Your task to perform on an android device: Set the phone to "Do not disturb". Image 0: 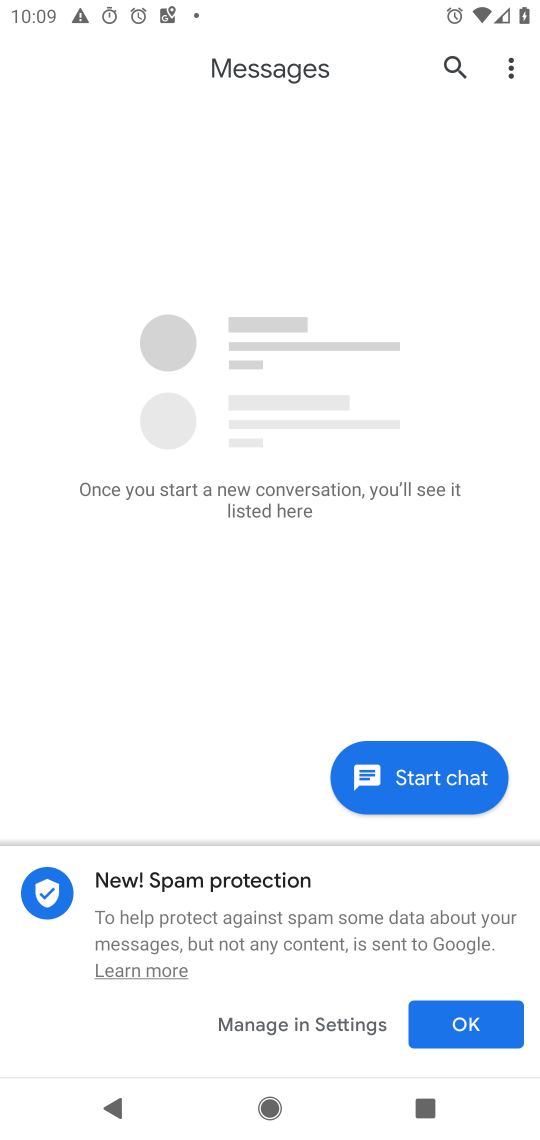
Step 0: press home button
Your task to perform on an android device: Set the phone to "Do not disturb". Image 1: 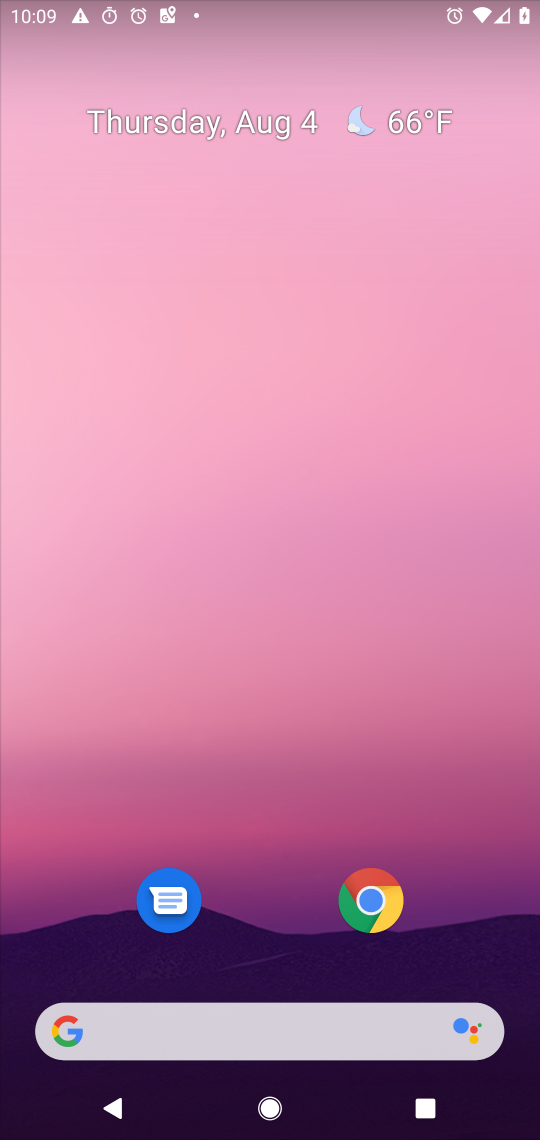
Step 1: drag from (237, 1017) to (332, 64)
Your task to perform on an android device: Set the phone to "Do not disturb". Image 2: 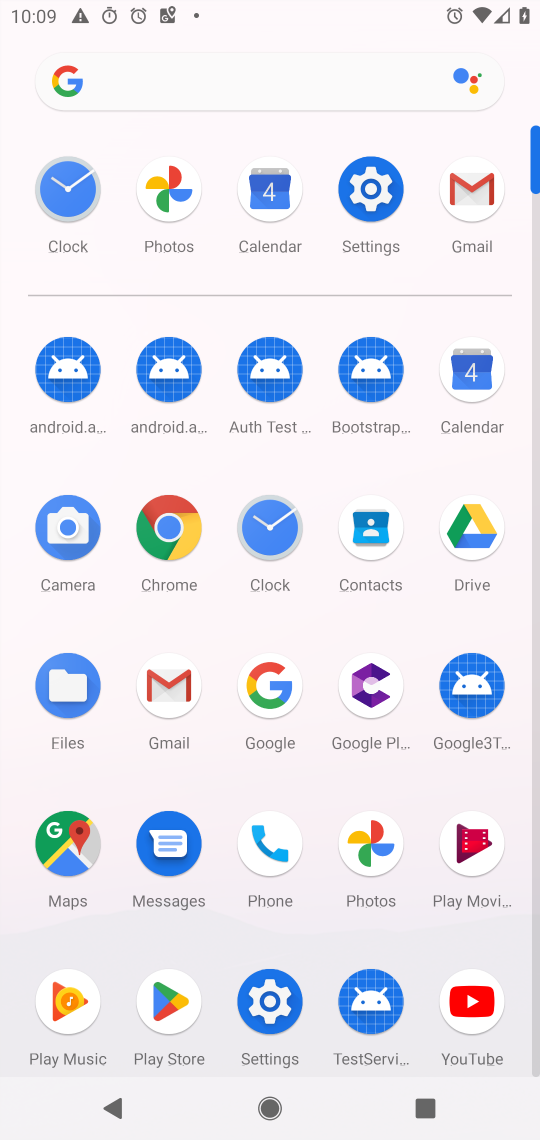
Step 2: click (370, 185)
Your task to perform on an android device: Set the phone to "Do not disturb". Image 3: 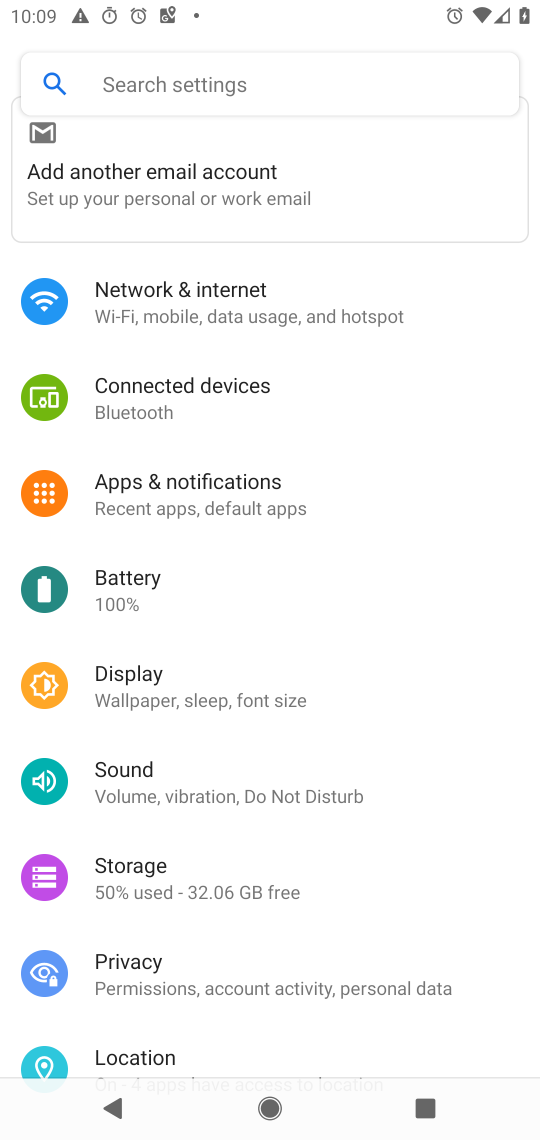
Step 3: click (181, 793)
Your task to perform on an android device: Set the phone to "Do not disturb". Image 4: 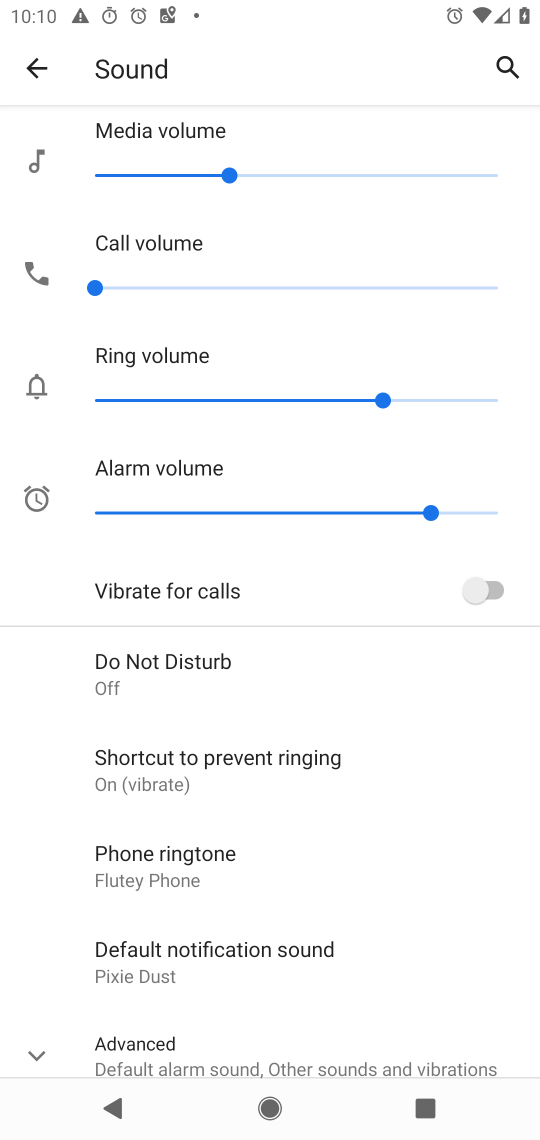
Step 4: click (188, 671)
Your task to perform on an android device: Set the phone to "Do not disturb". Image 5: 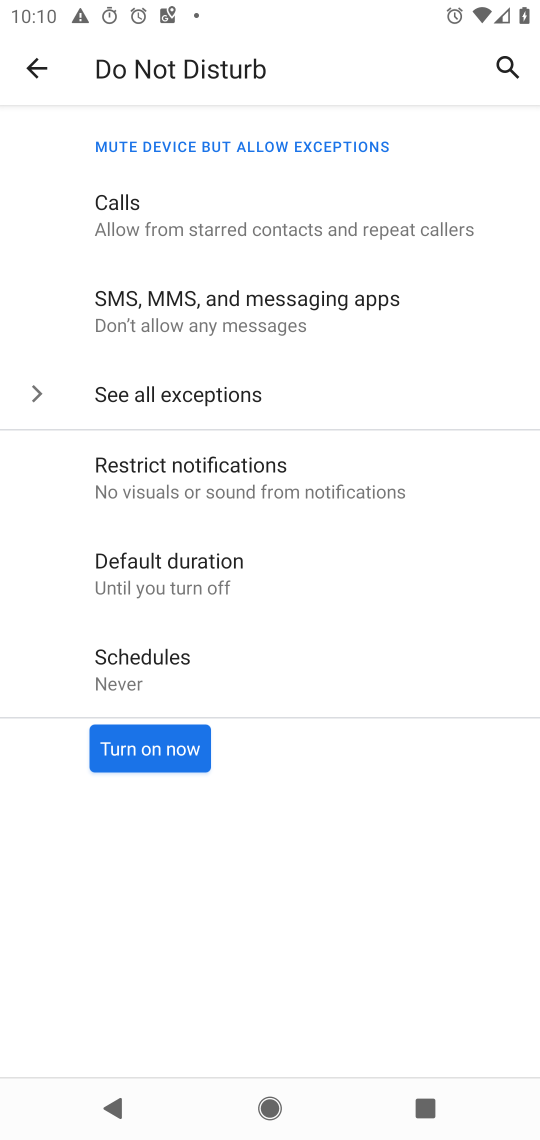
Step 5: click (146, 755)
Your task to perform on an android device: Set the phone to "Do not disturb". Image 6: 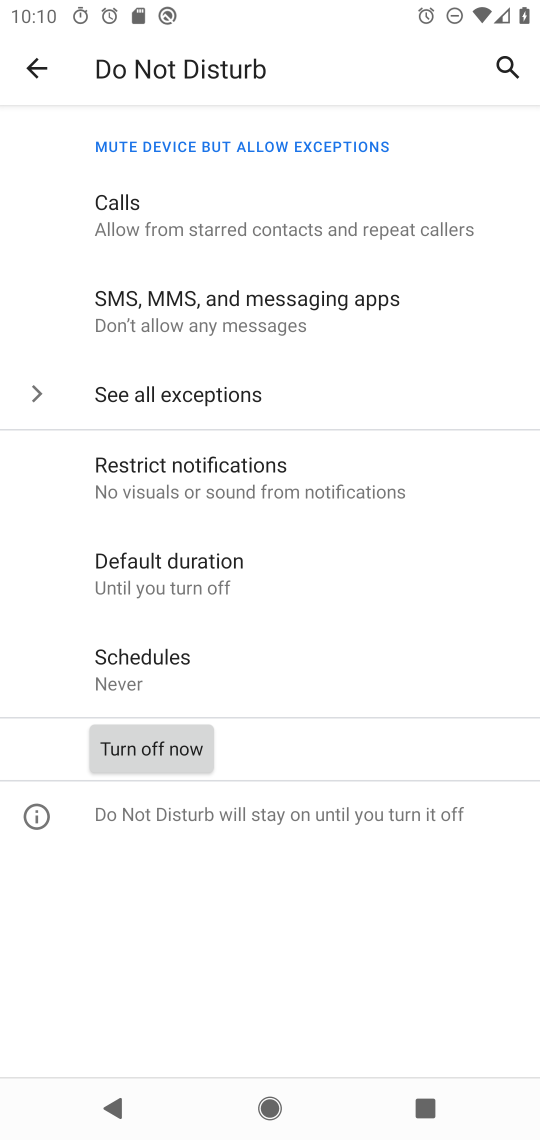
Step 6: task complete